Your task to perform on an android device: Open Youtube and go to "Your channel" Image 0: 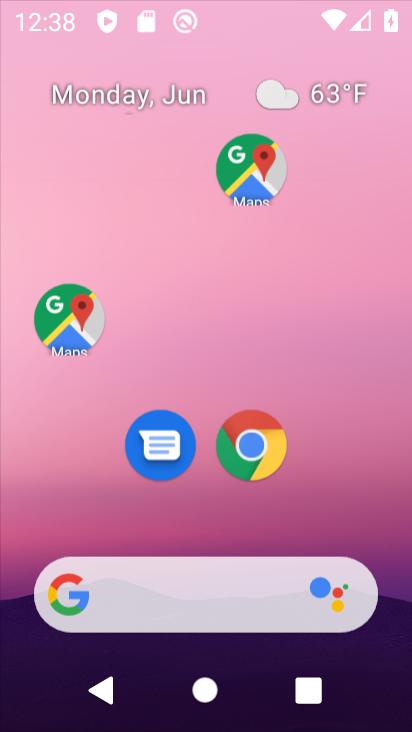
Step 0: click (192, 145)
Your task to perform on an android device: Open Youtube and go to "Your channel" Image 1: 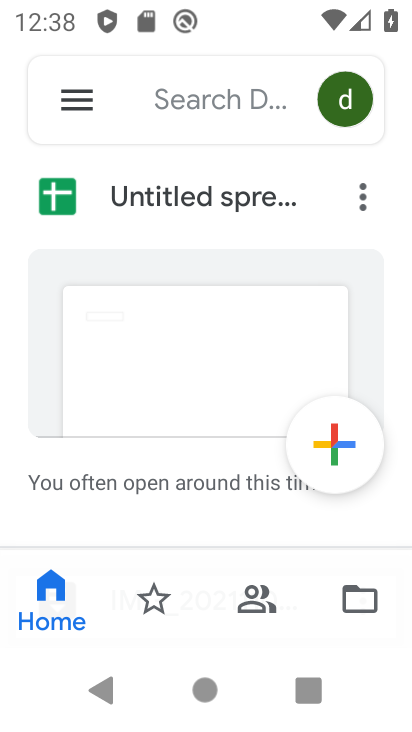
Step 1: press back button
Your task to perform on an android device: Open Youtube and go to "Your channel" Image 2: 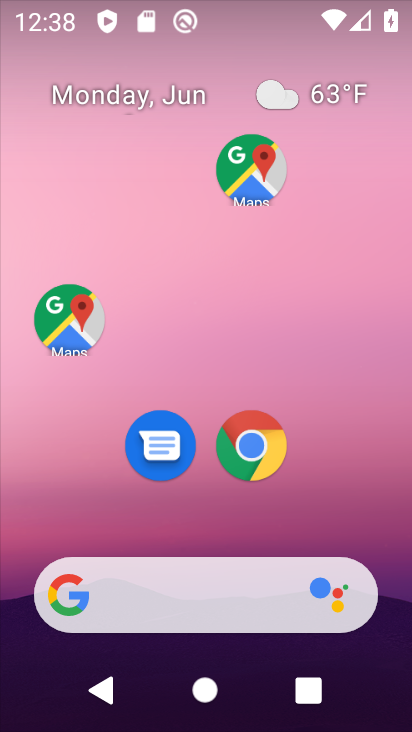
Step 2: drag from (203, 559) to (125, 113)
Your task to perform on an android device: Open Youtube and go to "Your channel" Image 3: 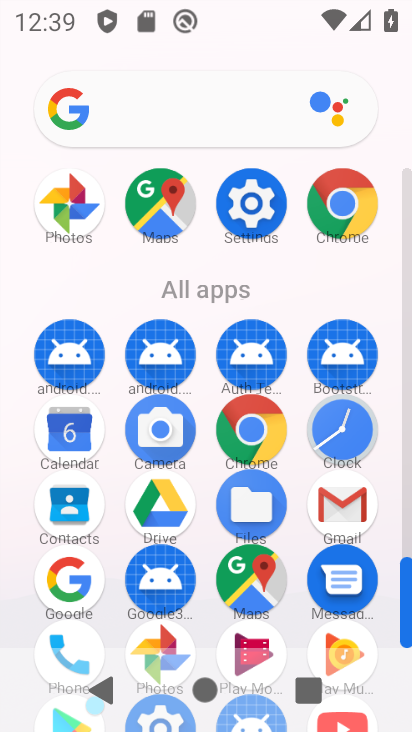
Step 3: drag from (234, 338) to (234, 187)
Your task to perform on an android device: Open Youtube and go to "Your channel" Image 4: 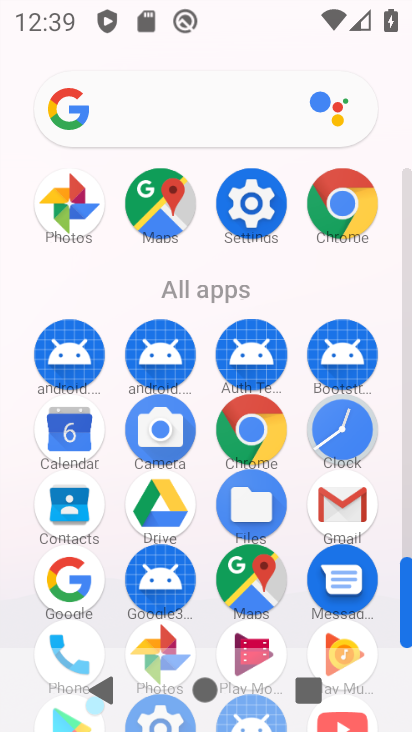
Step 4: drag from (212, 487) to (209, 69)
Your task to perform on an android device: Open Youtube and go to "Your channel" Image 5: 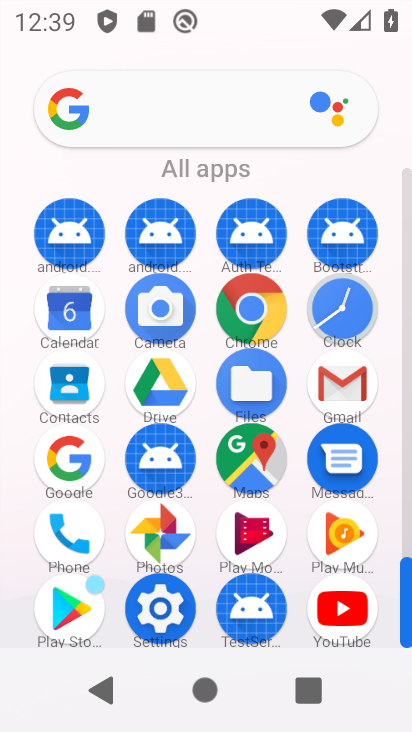
Step 5: click (330, 595)
Your task to perform on an android device: Open Youtube and go to "Your channel" Image 6: 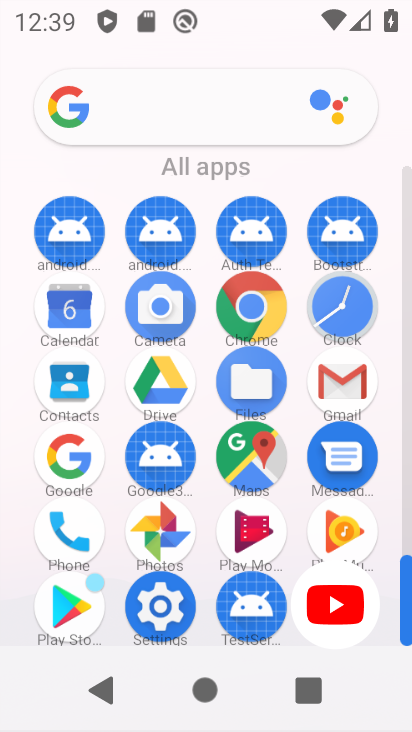
Step 6: click (325, 599)
Your task to perform on an android device: Open Youtube and go to "Your channel" Image 7: 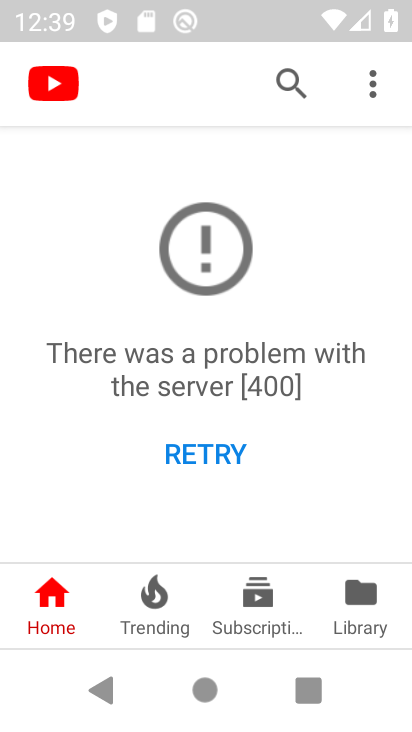
Step 7: task complete